Your task to perform on an android device: Go to Yahoo.com Image 0: 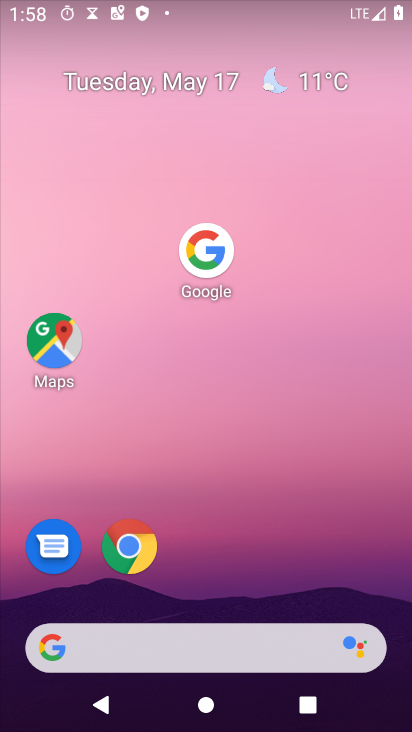
Step 0: press home button
Your task to perform on an android device: Go to Yahoo.com Image 1: 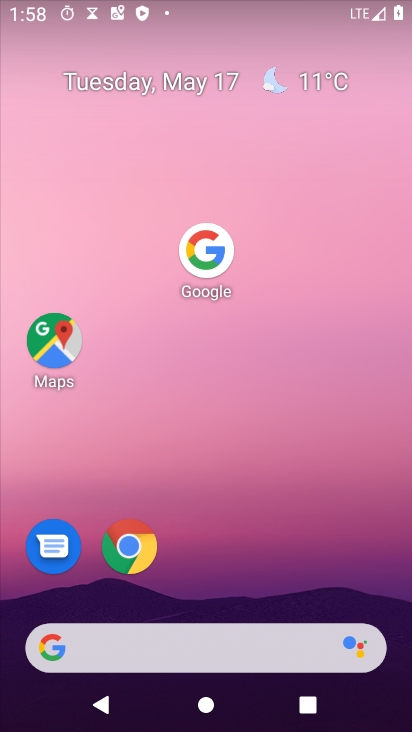
Step 1: click (135, 562)
Your task to perform on an android device: Go to Yahoo.com Image 2: 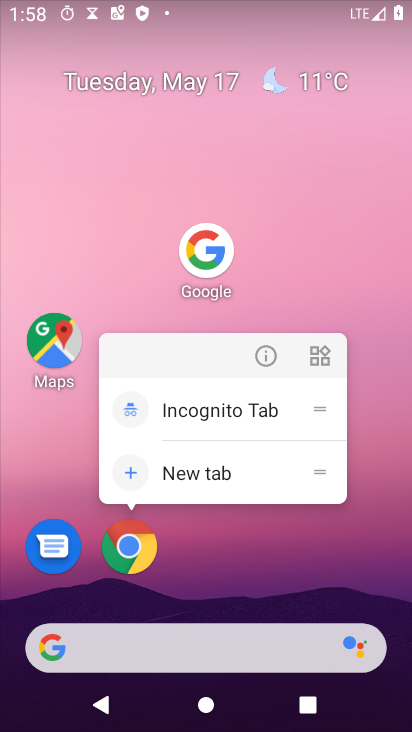
Step 2: click (133, 548)
Your task to perform on an android device: Go to Yahoo.com Image 3: 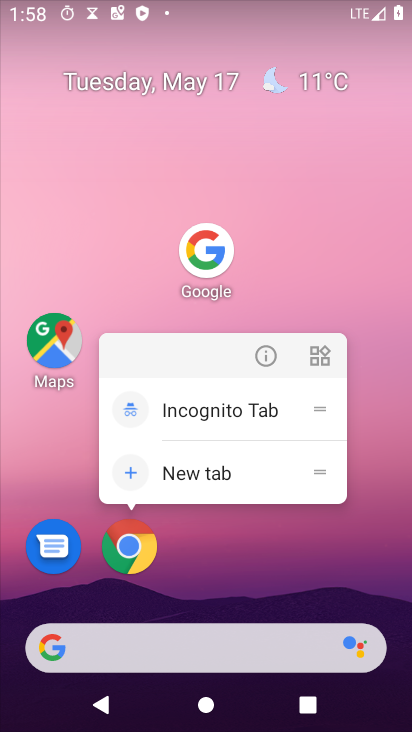
Step 3: click (136, 551)
Your task to perform on an android device: Go to Yahoo.com Image 4: 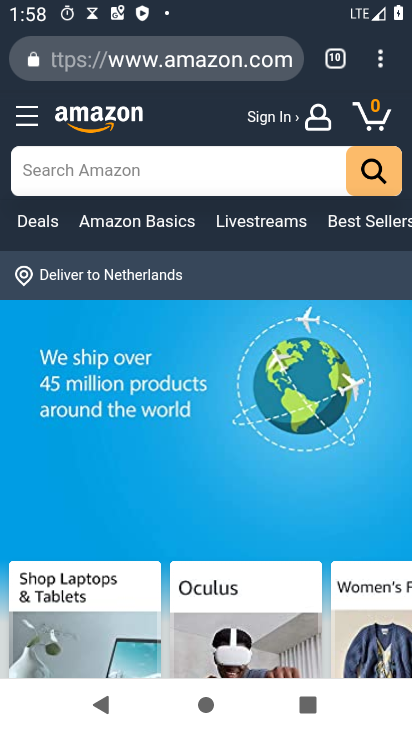
Step 4: drag from (376, 72) to (280, 111)
Your task to perform on an android device: Go to Yahoo.com Image 5: 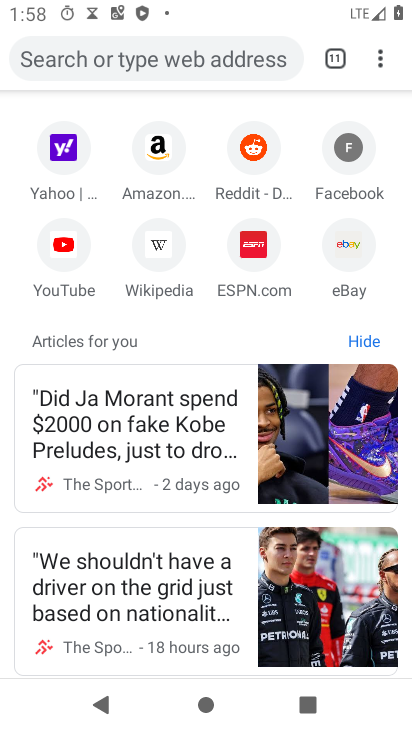
Step 5: click (67, 153)
Your task to perform on an android device: Go to Yahoo.com Image 6: 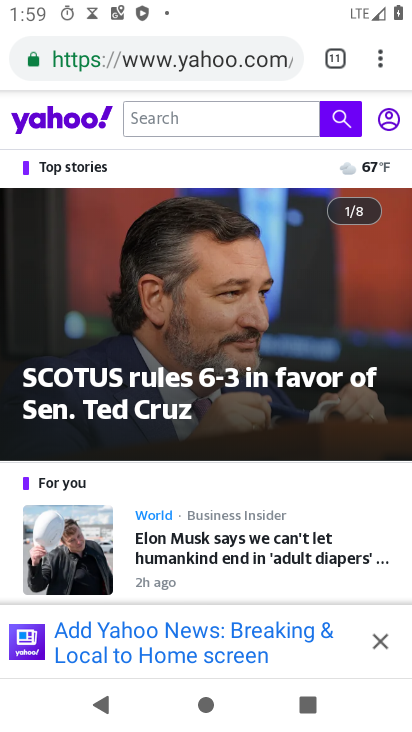
Step 6: task complete